Your task to perform on an android device: Open CNN.com Image 0: 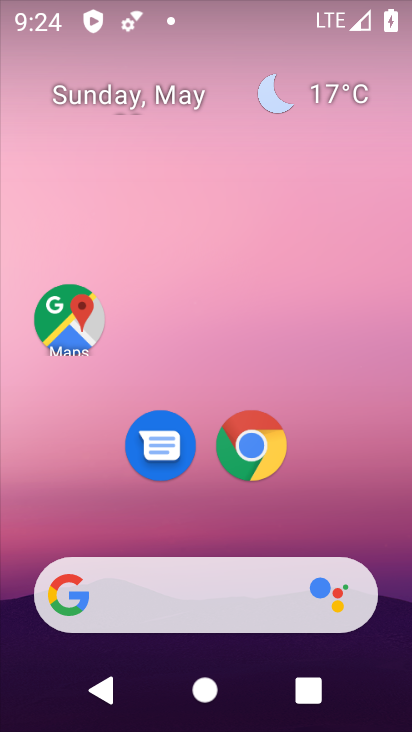
Step 0: drag from (185, 484) to (198, 84)
Your task to perform on an android device: Open CNN.com Image 1: 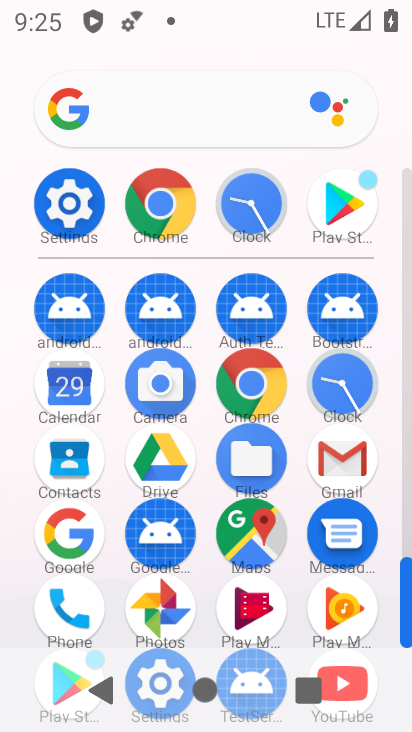
Step 1: click (198, 100)
Your task to perform on an android device: Open CNN.com Image 2: 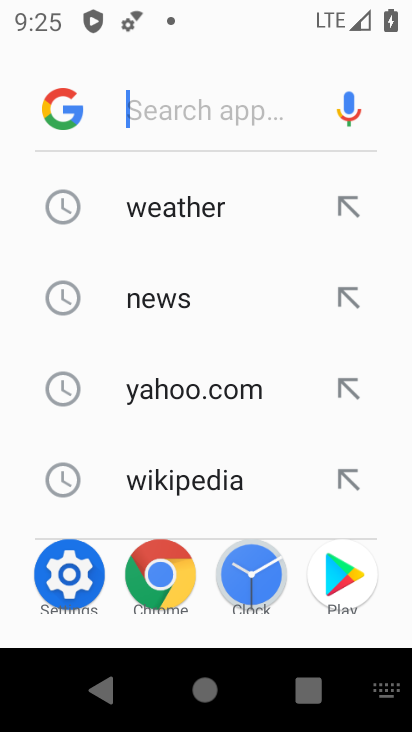
Step 2: type "CNN.com"
Your task to perform on an android device: Open CNN.com Image 3: 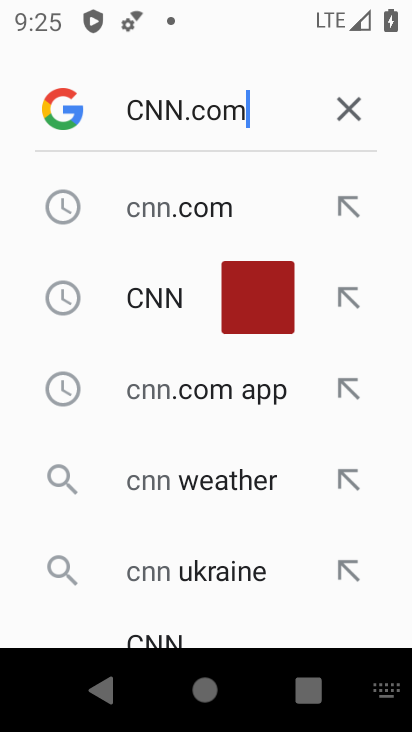
Step 3: type ""
Your task to perform on an android device: Open CNN.com Image 4: 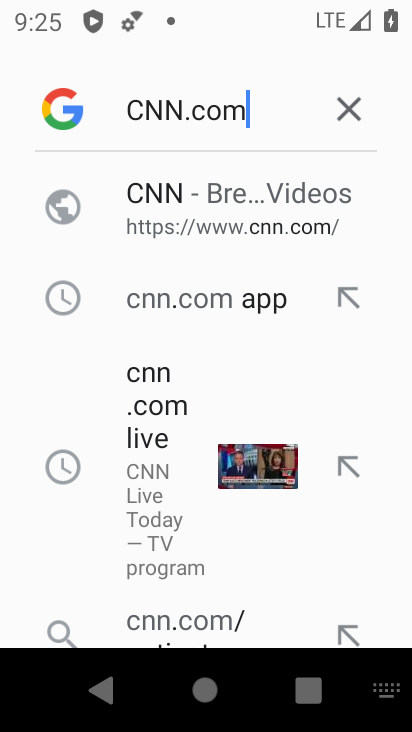
Step 4: click (191, 212)
Your task to perform on an android device: Open CNN.com Image 5: 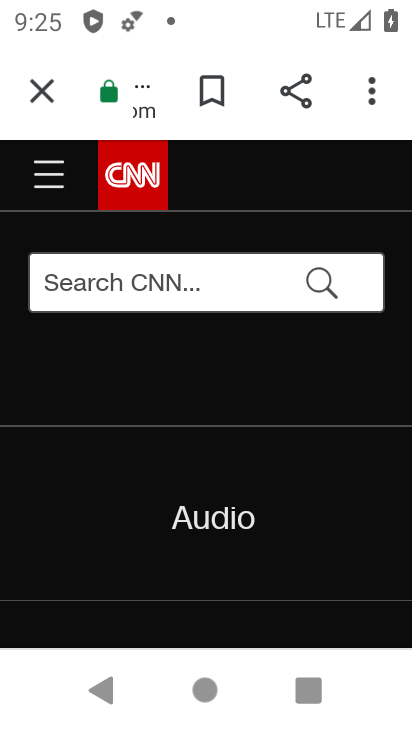
Step 5: task complete